Your task to perform on an android device: toggle priority inbox in the gmail app Image 0: 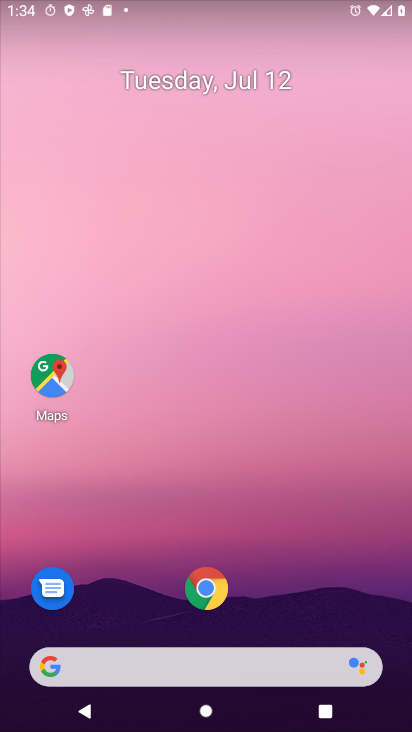
Step 0: drag from (213, 648) to (330, 12)
Your task to perform on an android device: toggle priority inbox in the gmail app Image 1: 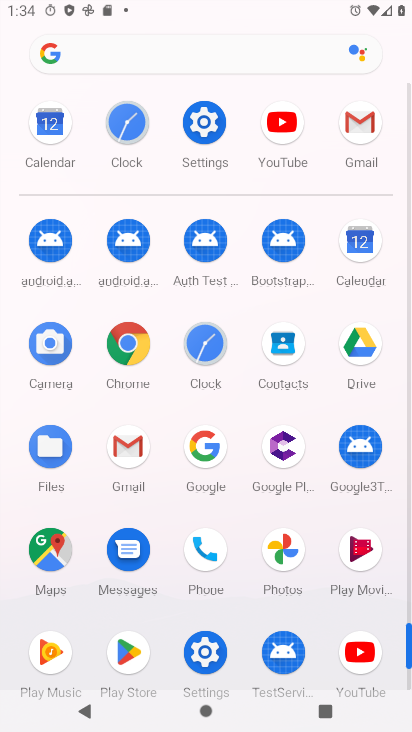
Step 1: click (360, 119)
Your task to perform on an android device: toggle priority inbox in the gmail app Image 2: 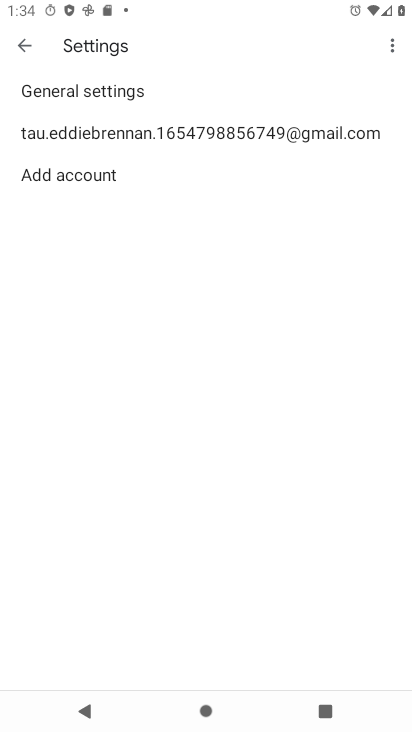
Step 2: click (301, 136)
Your task to perform on an android device: toggle priority inbox in the gmail app Image 3: 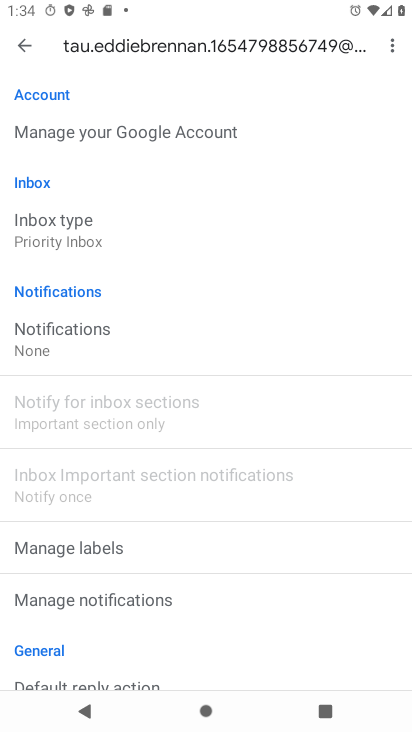
Step 3: click (64, 239)
Your task to perform on an android device: toggle priority inbox in the gmail app Image 4: 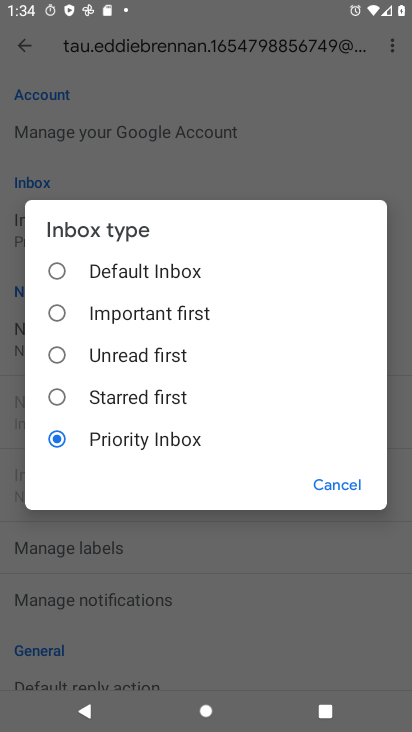
Step 4: click (54, 270)
Your task to perform on an android device: toggle priority inbox in the gmail app Image 5: 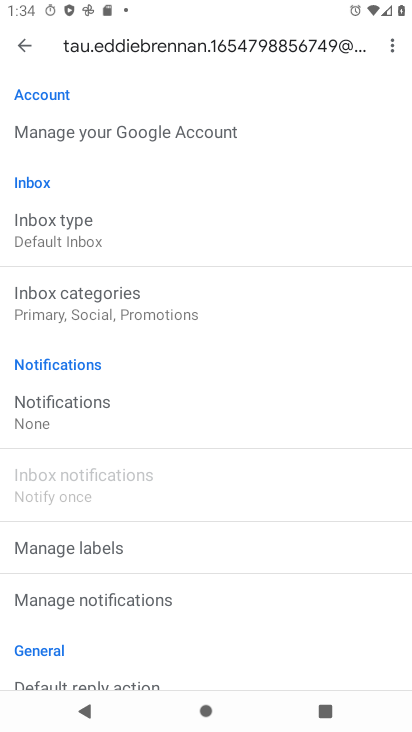
Step 5: task complete